Your task to perform on an android device: Open notification settings Image 0: 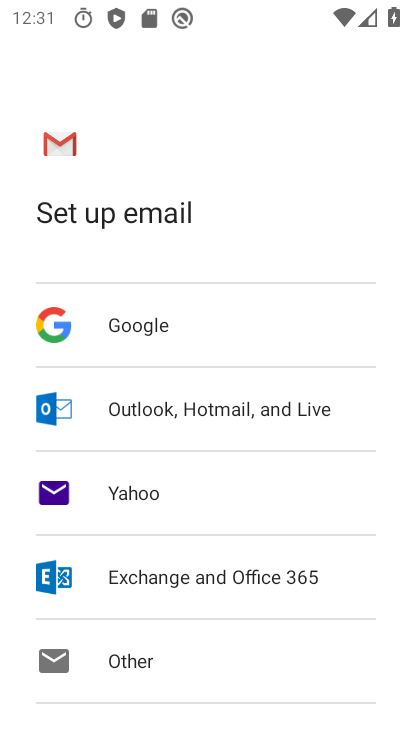
Step 0: press back button
Your task to perform on an android device: Open notification settings Image 1: 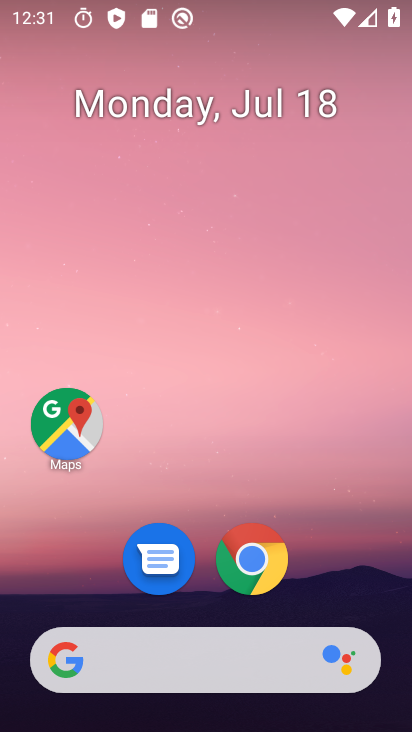
Step 1: drag from (69, 574) to (189, 2)
Your task to perform on an android device: Open notification settings Image 2: 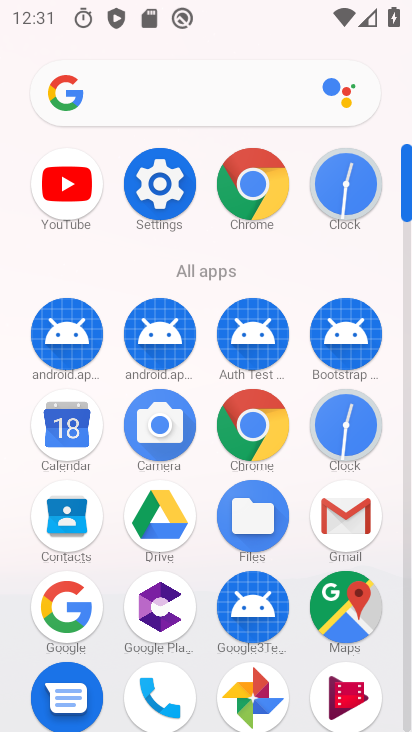
Step 2: click (164, 169)
Your task to perform on an android device: Open notification settings Image 3: 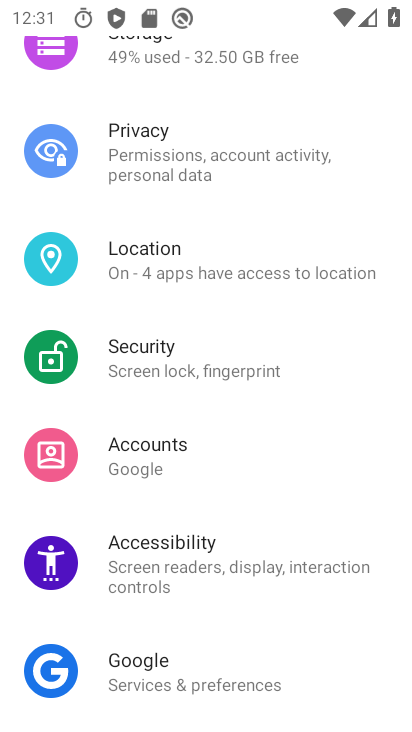
Step 3: drag from (186, 162) to (207, 719)
Your task to perform on an android device: Open notification settings Image 4: 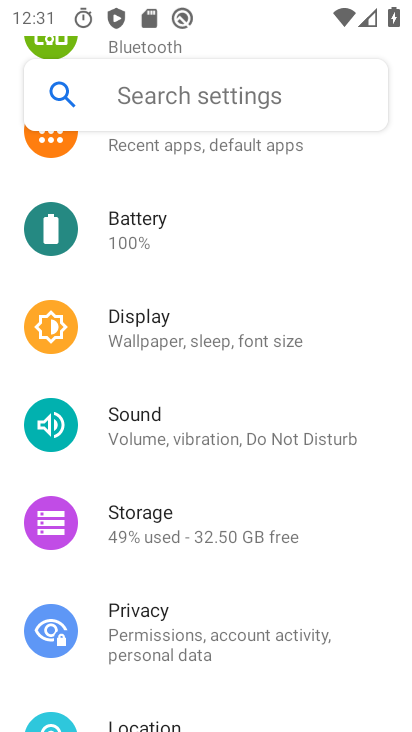
Step 4: drag from (179, 209) to (202, 731)
Your task to perform on an android device: Open notification settings Image 5: 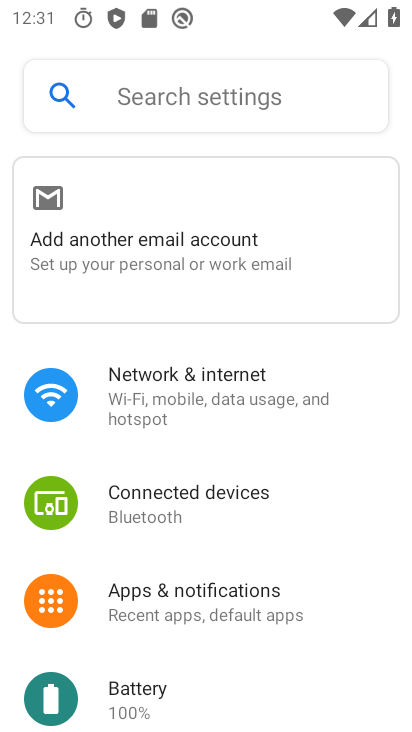
Step 5: click (232, 574)
Your task to perform on an android device: Open notification settings Image 6: 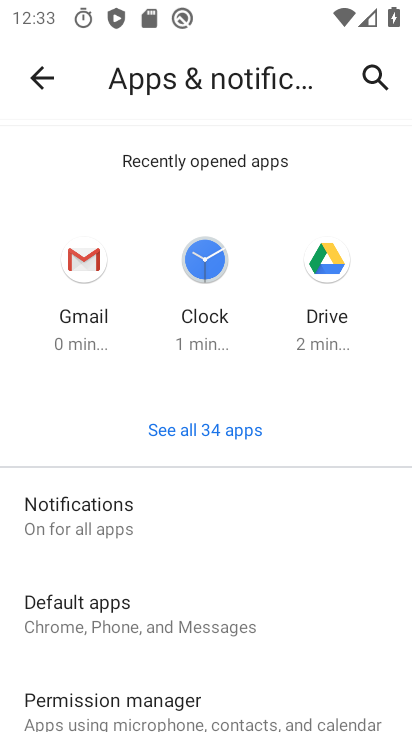
Step 6: click (121, 509)
Your task to perform on an android device: Open notification settings Image 7: 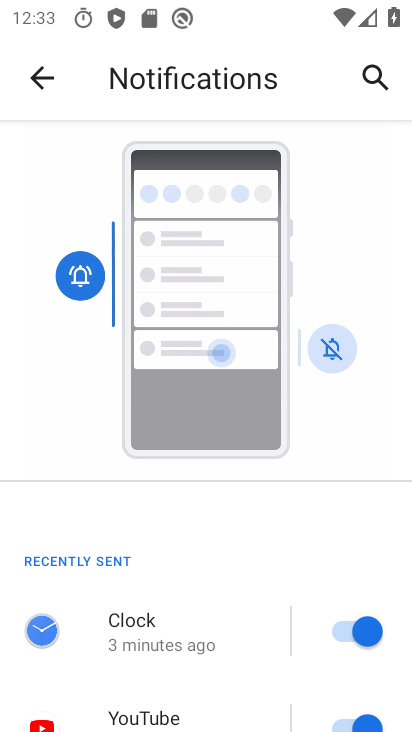
Step 7: task complete